Your task to perform on an android device: Go to ESPN.com Image 0: 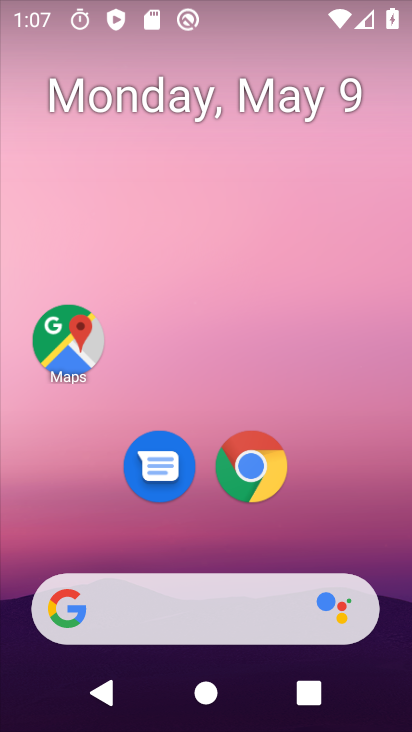
Step 0: click (260, 500)
Your task to perform on an android device: Go to ESPN.com Image 1: 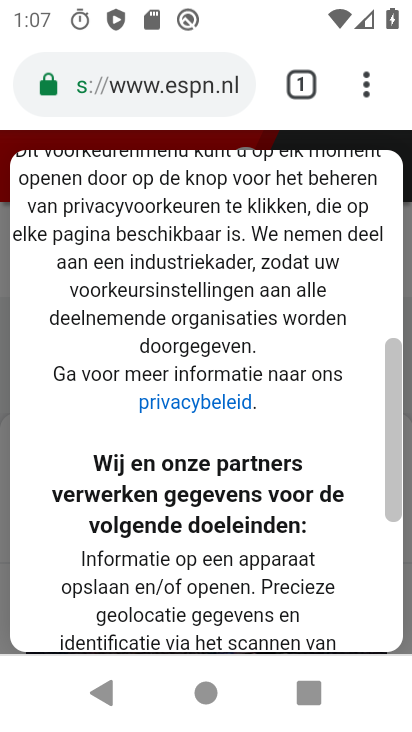
Step 1: click (204, 104)
Your task to perform on an android device: Go to ESPN.com Image 2: 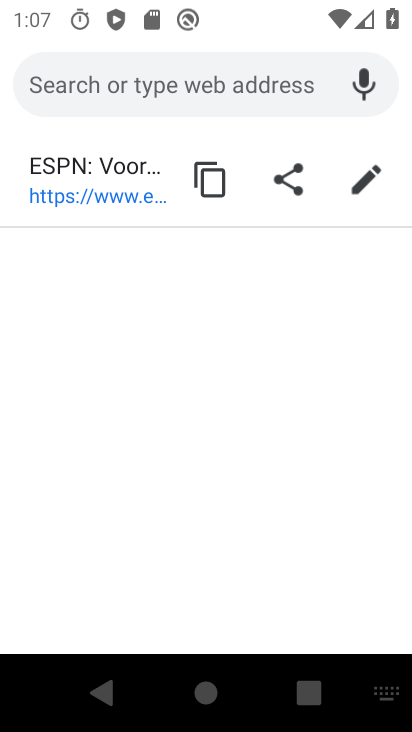
Step 2: task complete